Your task to perform on an android device: turn off sleep mode Image 0: 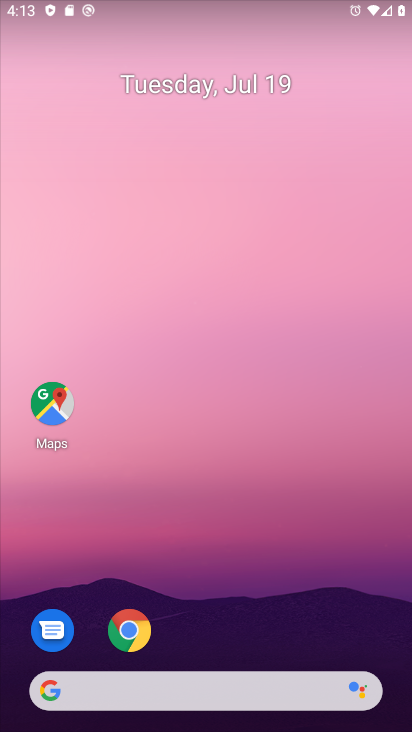
Step 0: click (134, 630)
Your task to perform on an android device: turn off sleep mode Image 1: 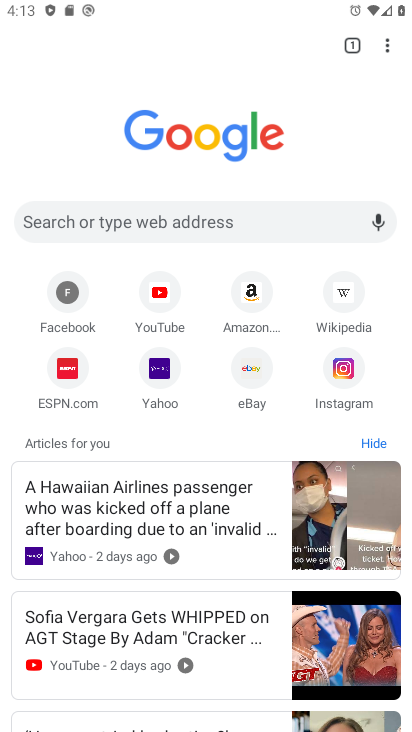
Step 1: task complete